Your task to perform on an android device: manage bookmarks in the chrome app Image 0: 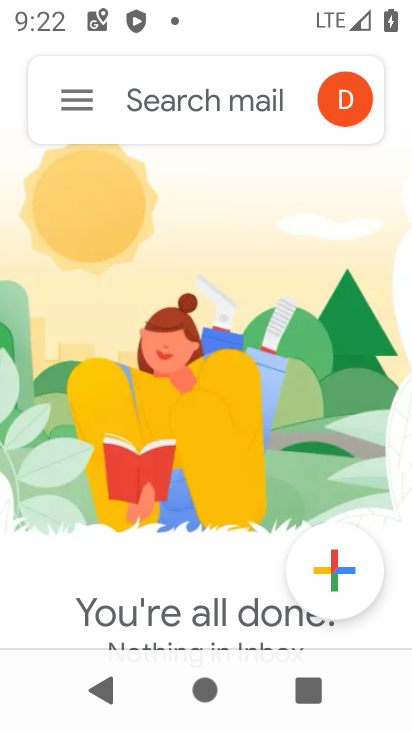
Step 0: press home button
Your task to perform on an android device: manage bookmarks in the chrome app Image 1: 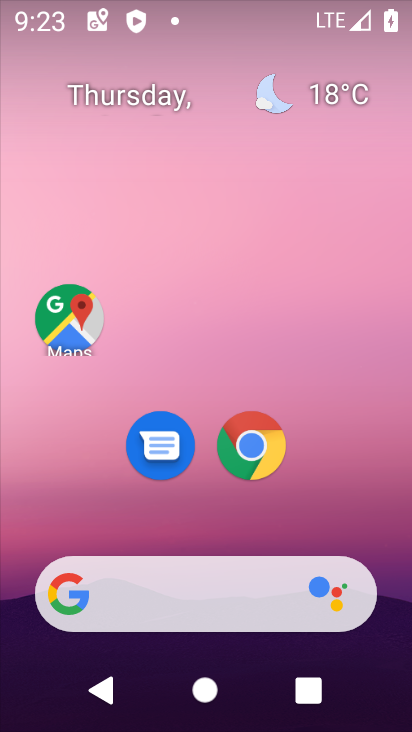
Step 1: click (273, 437)
Your task to perform on an android device: manage bookmarks in the chrome app Image 2: 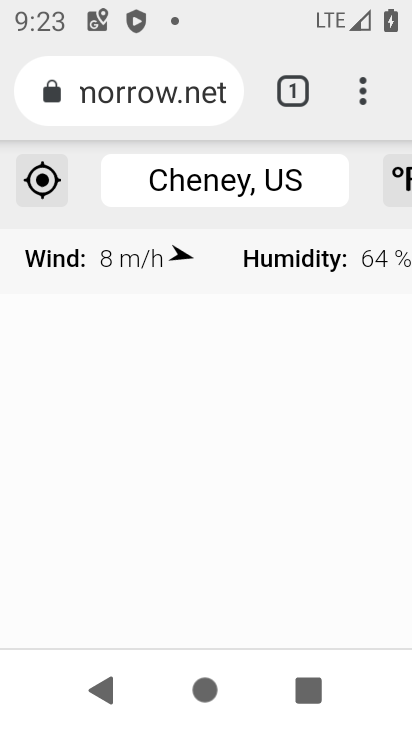
Step 2: click (371, 117)
Your task to perform on an android device: manage bookmarks in the chrome app Image 3: 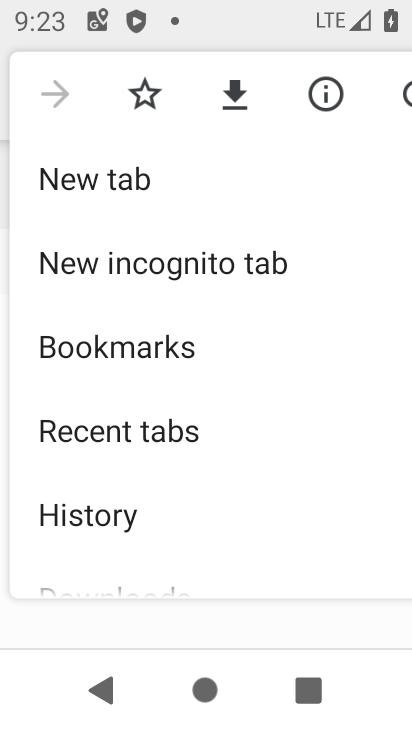
Step 3: click (134, 351)
Your task to perform on an android device: manage bookmarks in the chrome app Image 4: 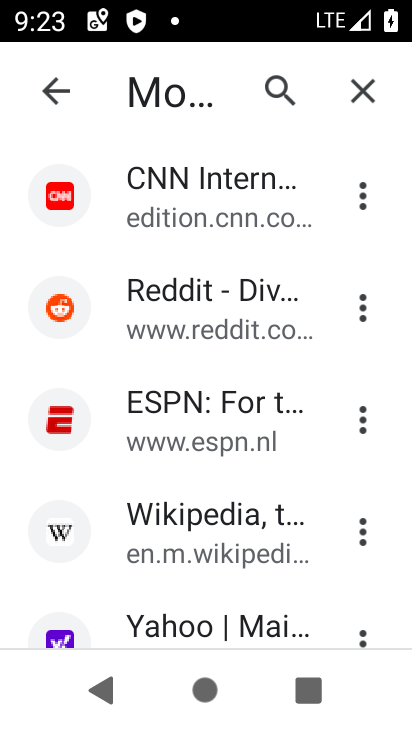
Step 4: click (234, 519)
Your task to perform on an android device: manage bookmarks in the chrome app Image 5: 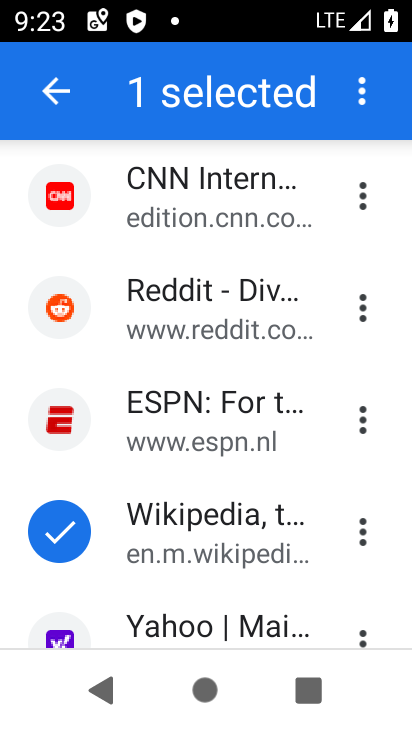
Step 5: click (369, 101)
Your task to perform on an android device: manage bookmarks in the chrome app Image 6: 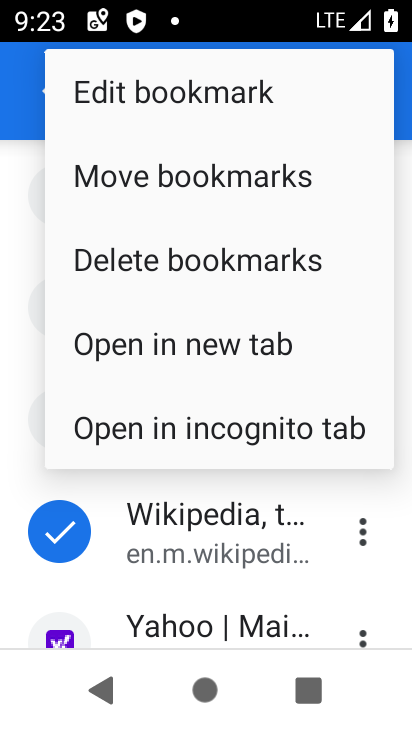
Step 6: click (294, 182)
Your task to perform on an android device: manage bookmarks in the chrome app Image 7: 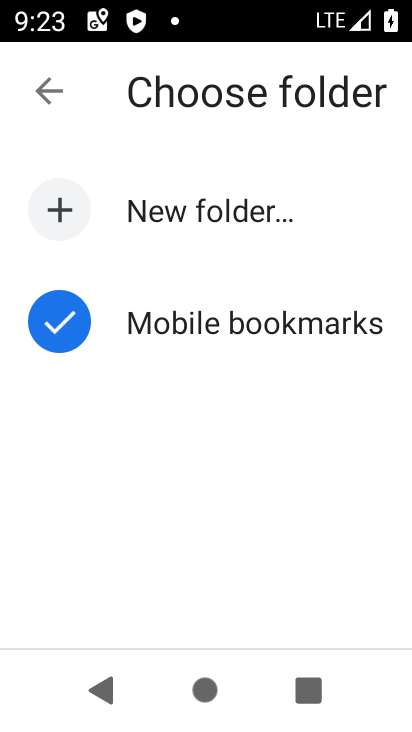
Step 7: click (228, 220)
Your task to perform on an android device: manage bookmarks in the chrome app Image 8: 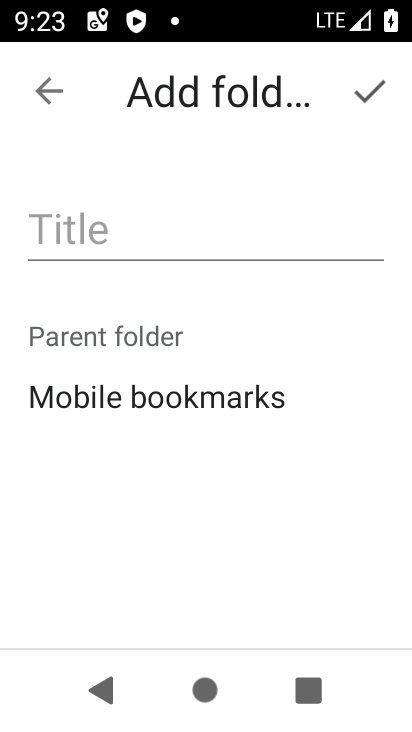
Step 8: click (265, 249)
Your task to perform on an android device: manage bookmarks in the chrome app Image 9: 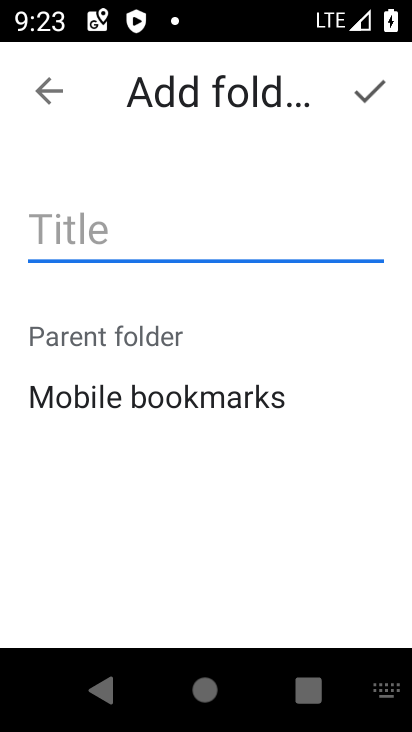
Step 9: type "dhbdhk"
Your task to perform on an android device: manage bookmarks in the chrome app Image 10: 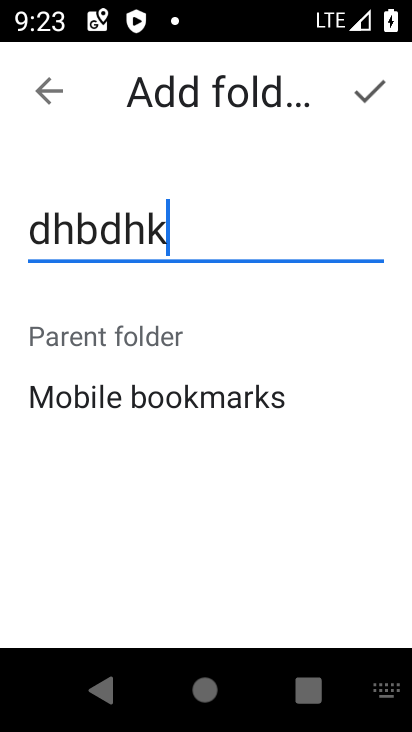
Step 10: click (381, 82)
Your task to perform on an android device: manage bookmarks in the chrome app Image 11: 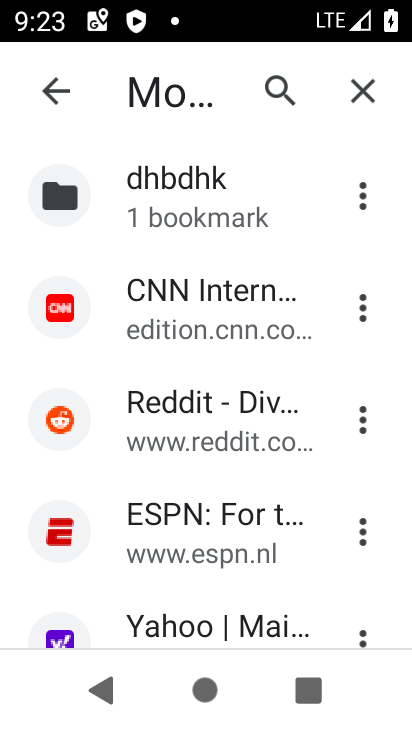
Step 11: task complete